Your task to perform on an android device: Open Android settings Image 0: 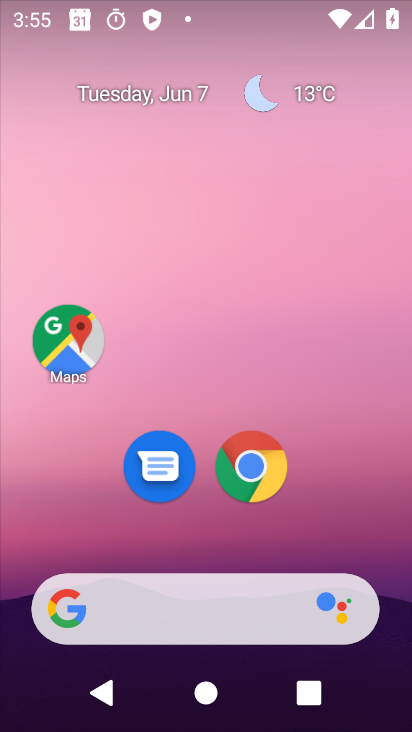
Step 0: drag from (404, 580) to (318, 138)
Your task to perform on an android device: Open Android settings Image 1: 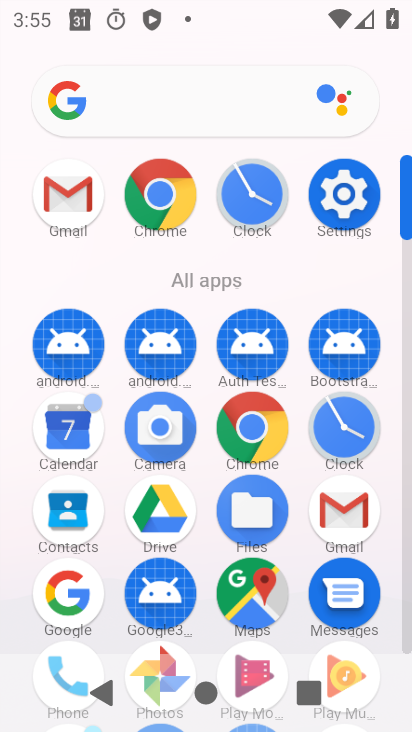
Step 1: click (338, 182)
Your task to perform on an android device: Open Android settings Image 2: 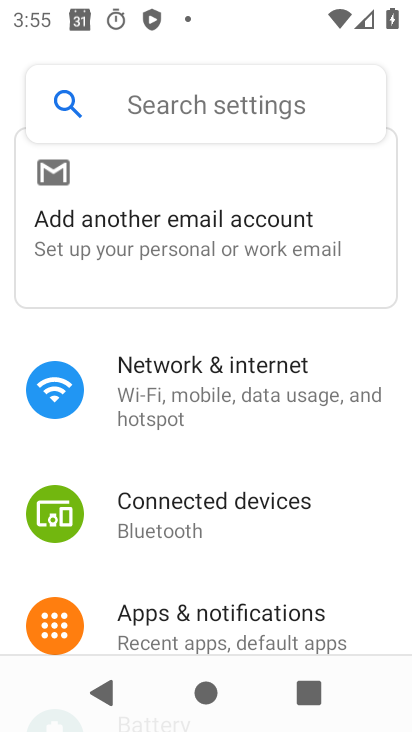
Step 2: task complete